Your task to perform on an android device: Show the shopping cart on newegg.com. Search for macbook air on newegg.com, select the first entry, and add it to the cart. Image 0: 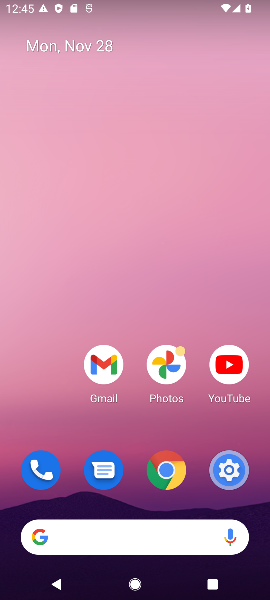
Step 0: click (106, 526)
Your task to perform on an android device: Show the shopping cart on newegg.com. Search for macbook air on newegg.com, select the first entry, and add it to the cart. Image 1: 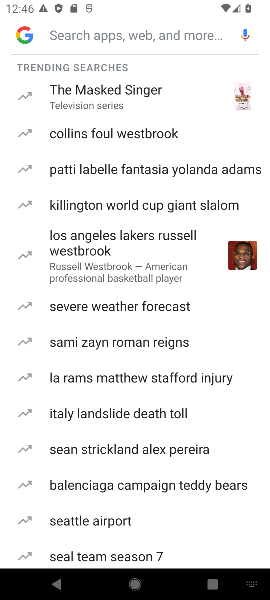
Step 1: type "newegg"
Your task to perform on an android device: Show the shopping cart on newegg.com. Search for macbook air on newegg.com, select the first entry, and add it to the cart. Image 2: 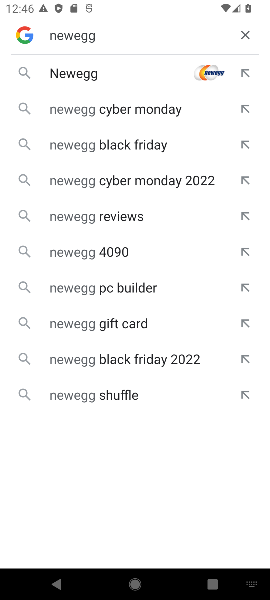
Step 2: click (64, 78)
Your task to perform on an android device: Show the shopping cart on newegg.com. Search for macbook air on newegg.com, select the first entry, and add it to the cart. Image 3: 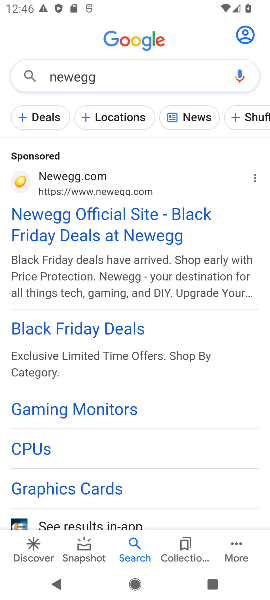
Step 3: click (96, 219)
Your task to perform on an android device: Show the shopping cart on newegg.com. Search for macbook air on newegg.com, select the first entry, and add it to the cart. Image 4: 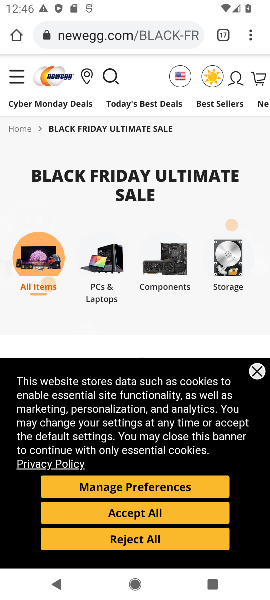
Step 4: click (105, 72)
Your task to perform on an android device: Show the shopping cart on newegg.com. Search for macbook air on newegg.com, select the first entry, and add it to the cart. Image 5: 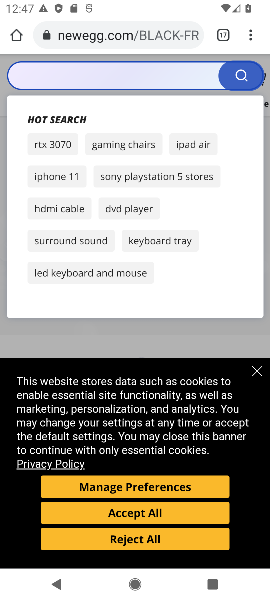
Step 5: click (84, 75)
Your task to perform on an android device: Show the shopping cart on newegg.com. Search for macbook air on newegg.com, select the first entry, and add it to the cart. Image 6: 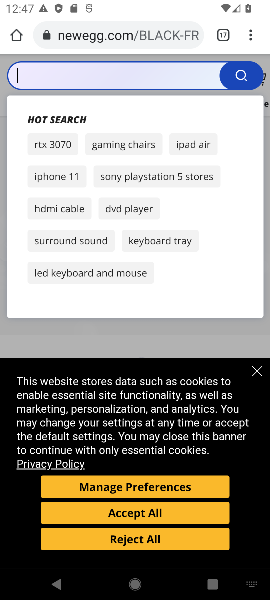
Step 6: type "macbook"
Your task to perform on an android device: Show the shopping cart on newegg.com. Search for macbook air on newegg.com, select the first entry, and add it to the cart. Image 7: 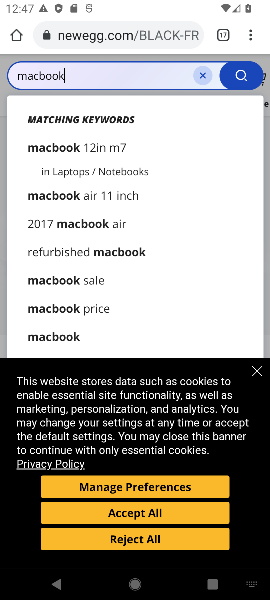
Step 7: click (49, 156)
Your task to perform on an android device: Show the shopping cart on newegg.com. Search for macbook air on newegg.com, select the first entry, and add it to the cart. Image 8: 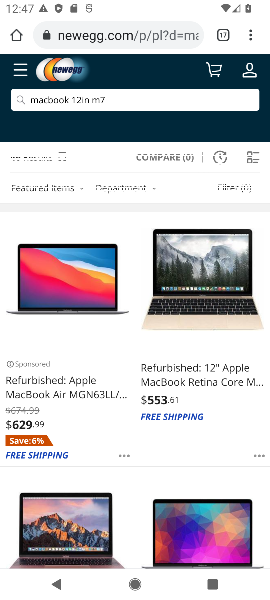
Step 8: task complete